Your task to perform on an android device: change the clock display to analog Image 0: 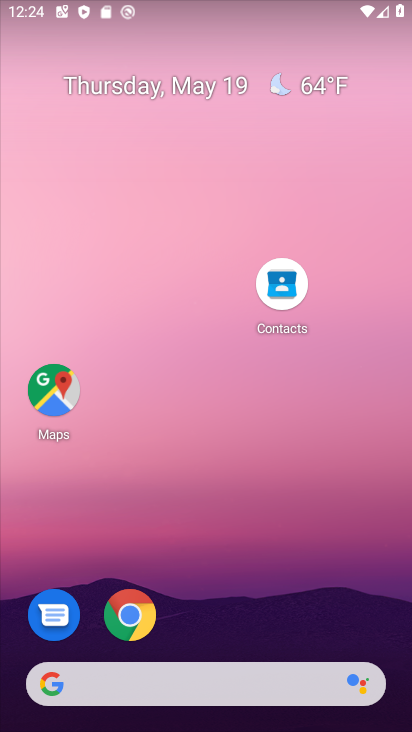
Step 0: drag from (224, 625) to (259, 169)
Your task to perform on an android device: change the clock display to analog Image 1: 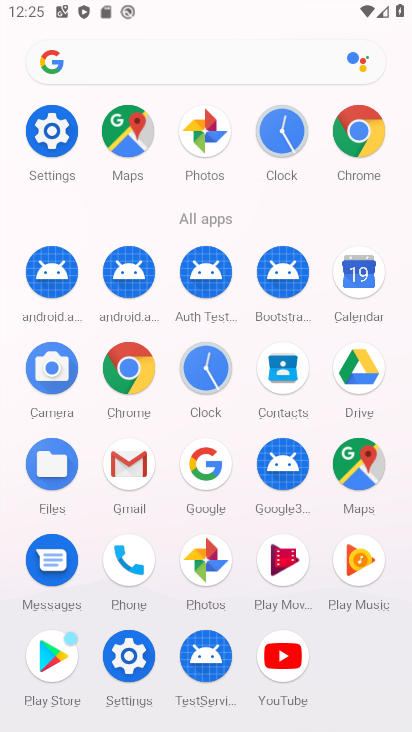
Step 1: click (204, 380)
Your task to perform on an android device: change the clock display to analog Image 2: 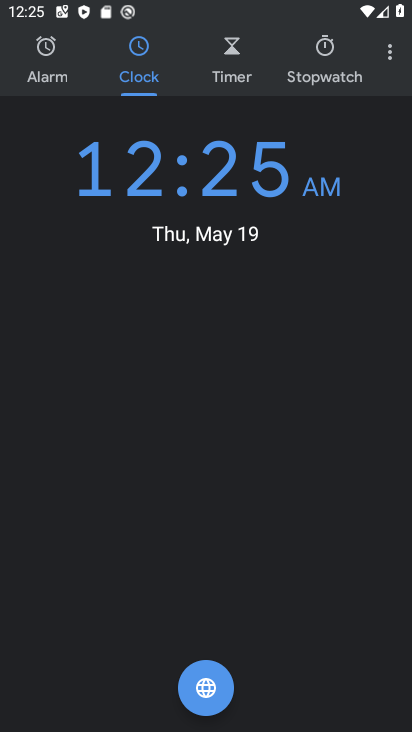
Step 2: click (391, 67)
Your task to perform on an android device: change the clock display to analog Image 3: 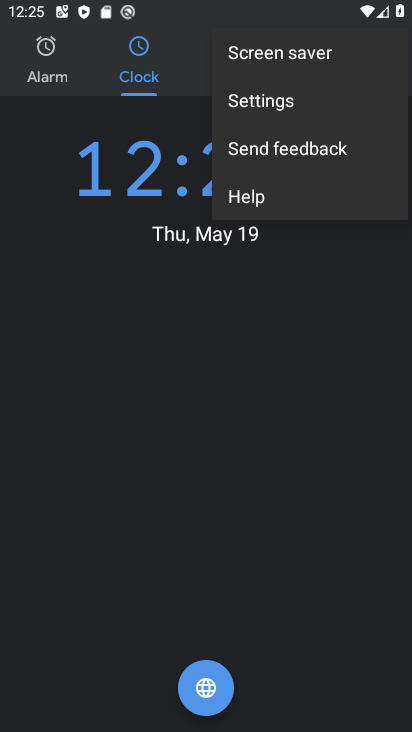
Step 3: click (276, 102)
Your task to perform on an android device: change the clock display to analog Image 4: 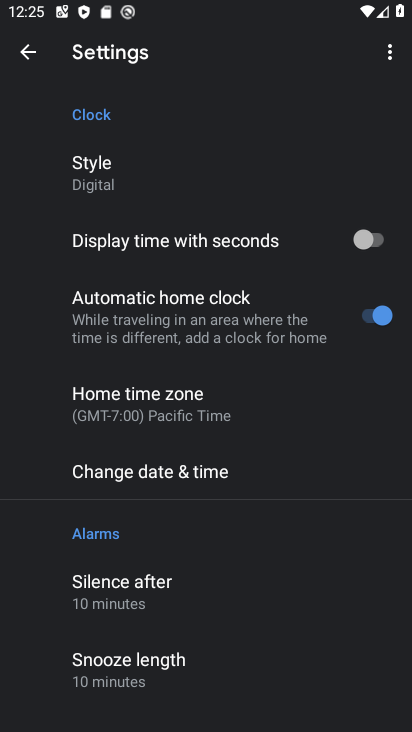
Step 4: click (154, 176)
Your task to perform on an android device: change the clock display to analog Image 5: 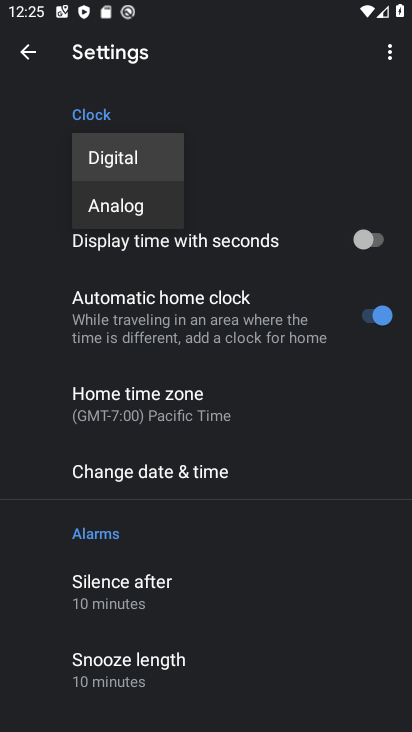
Step 5: click (151, 205)
Your task to perform on an android device: change the clock display to analog Image 6: 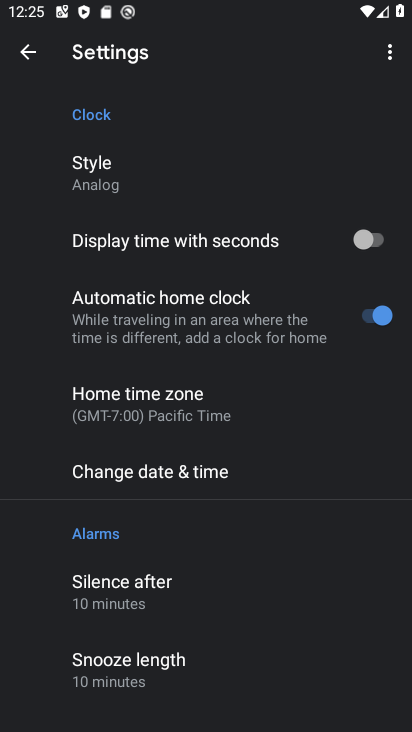
Step 6: task complete